Your task to perform on an android device: open device folders in google photos Image 0: 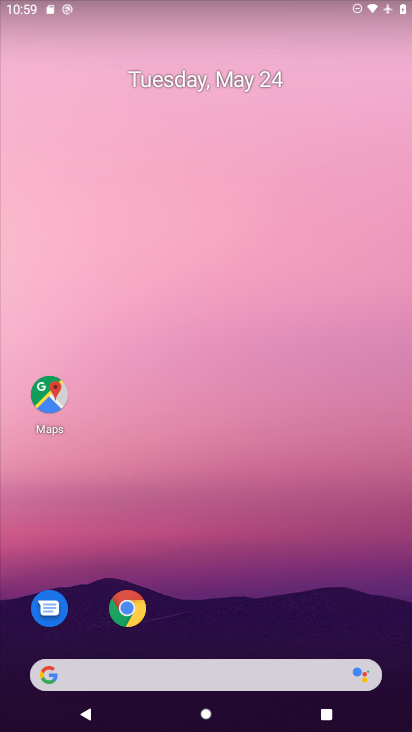
Step 0: drag from (388, 638) to (317, 112)
Your task to perform on an android device: open device folders in google photos Image 1: 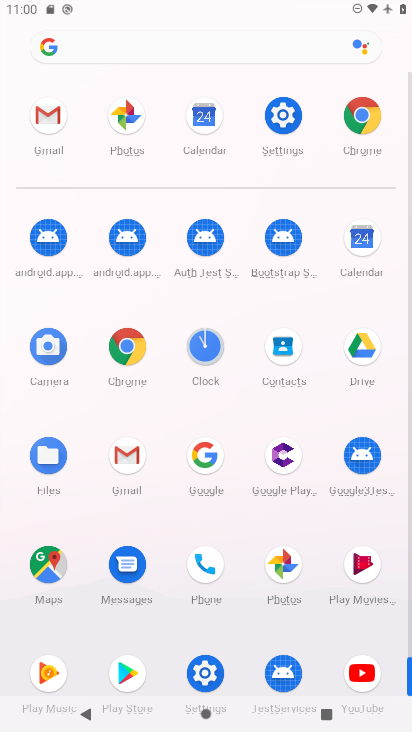
Step 1: click (279, 565)
Your task to perform on an android device: open device folders in google photos Image 2: 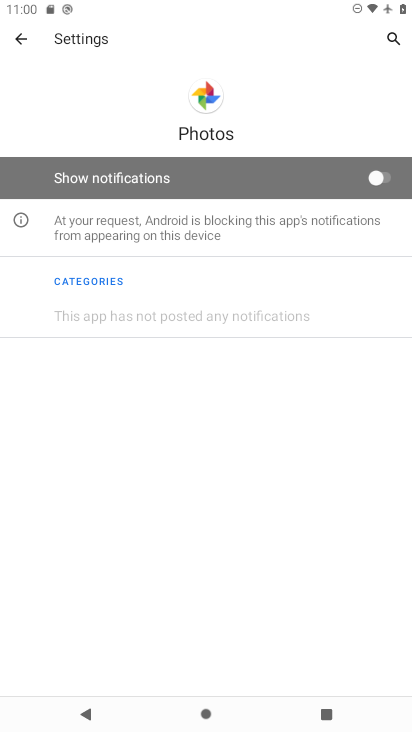
Step 2: press back button
Your task to perform on an android device: open device folders in google photos Image 3: 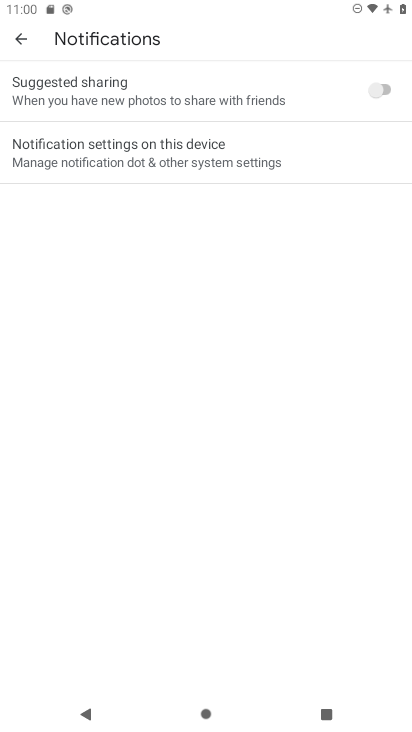
Step 3: press back button
Your task to perform on an android device: open device folders in google photos Image 4: 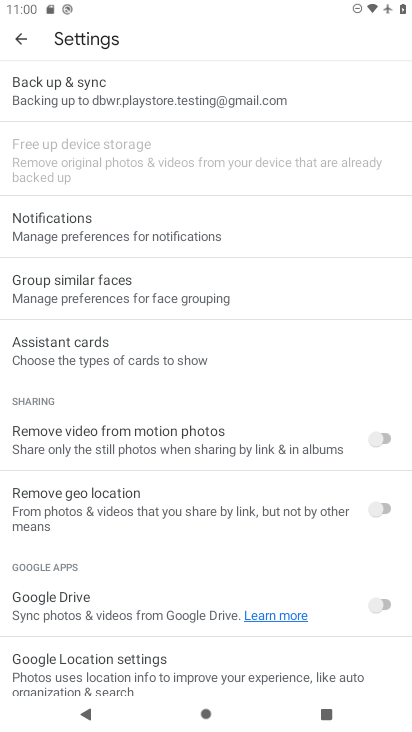
Step 4: press back button
Your task to perform on an android device: open device folders in google photos Image 5: 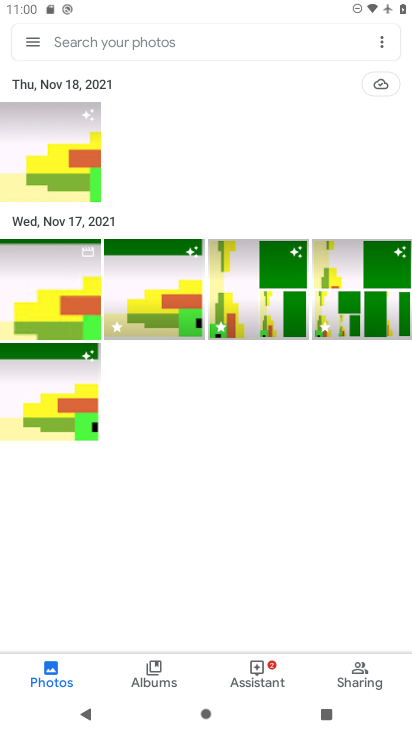
Step 5: click (33, 43)
Your task to perform on an android device: open device folders in google photos Image 6: 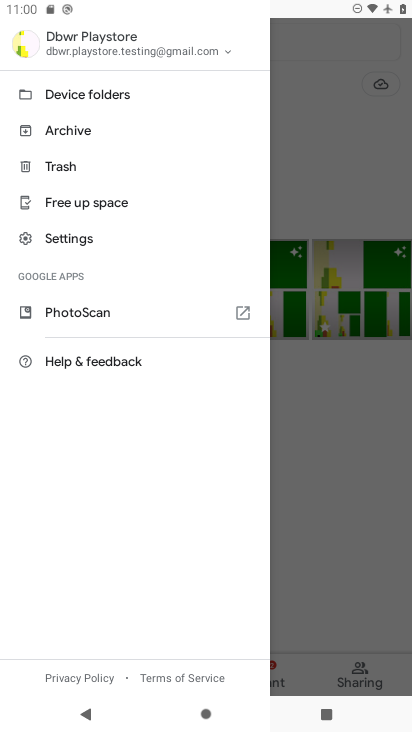
Step 6: click (83, 93)
Your task to perform on an android device: open device folders in google photos Image 7: 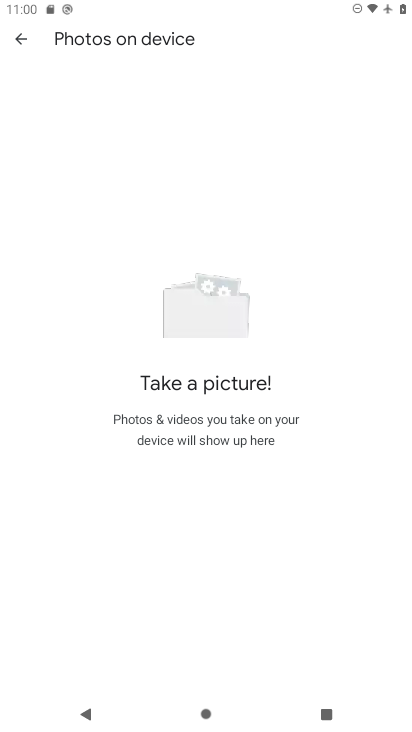
Step 7: task complete